Your task to perform on an android device: Go to Amazon Image 0: 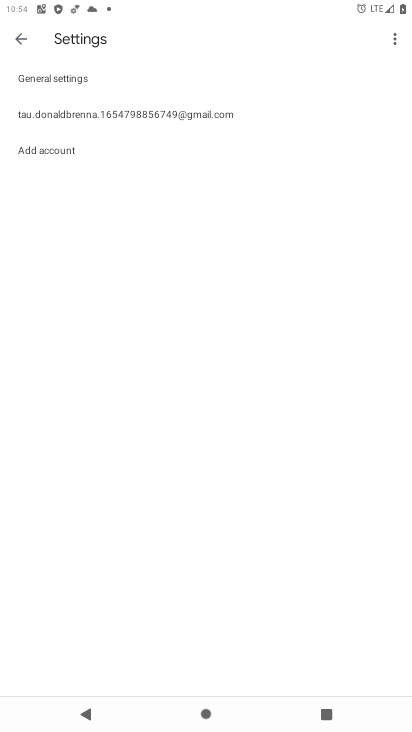
Step 0: press home button
Your task to perform on an android device: Go to Amazon Image 1: 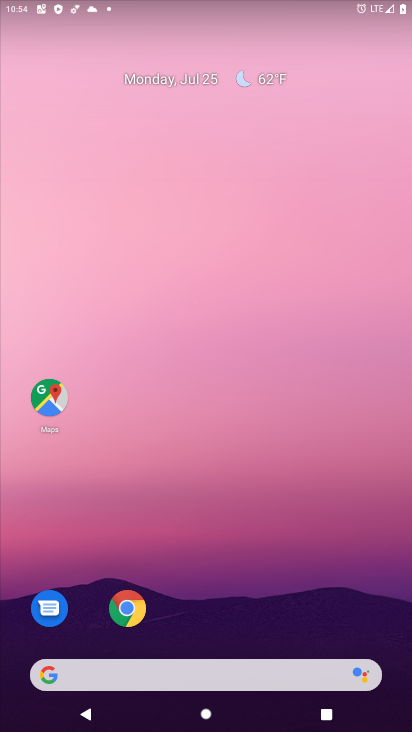
Step 1: click (118, 602)
Your task to perform on an android device: Go to Amazon Image 2: 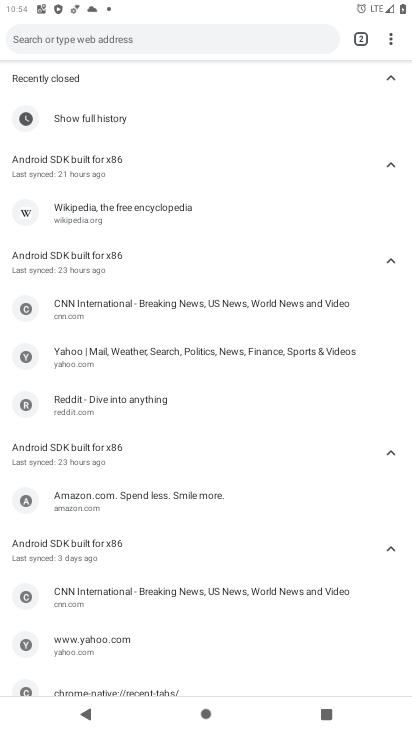
Step 2: click (149, 502)
Your task to perform on an android device: Go to Amazon Image 3: 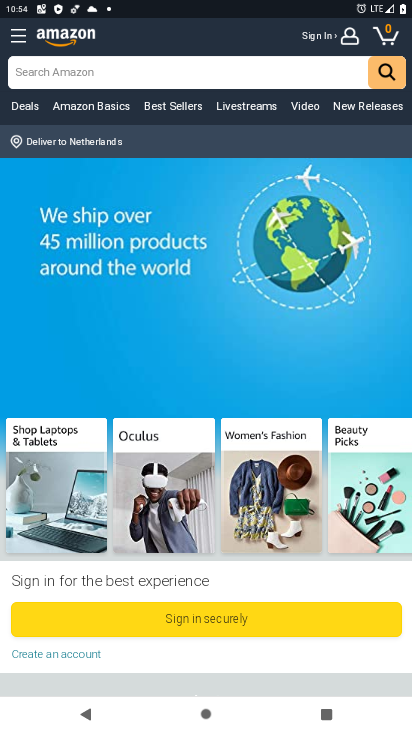
Step 3: task complete